Your task to perform on an android device: refresh tabs in the chrome app Image 0: 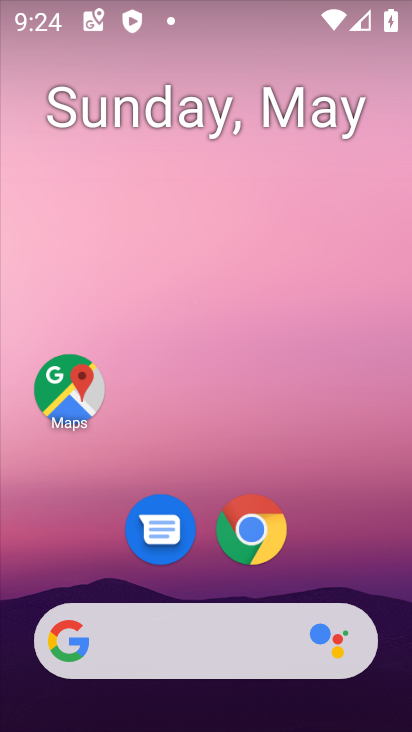
Step 0: click (258, 538)
Your task to perform on an android device: refresh tabs in the chrome app Image 1: 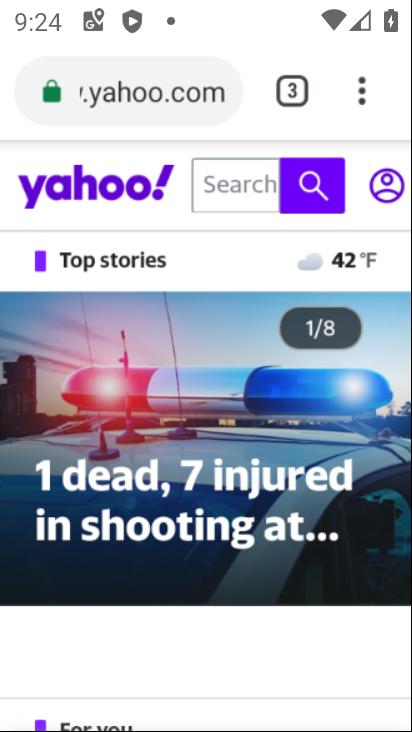
Step 1: click (363, 110)
Your task to perform on an android device: refresh tabs in the chrome app Image 2: 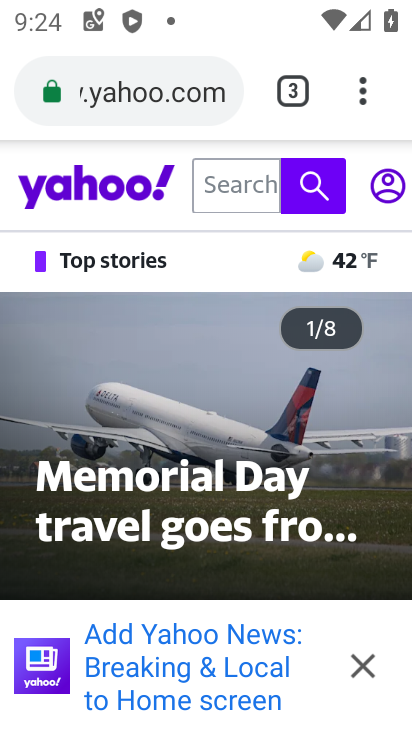
Step 2: click (361, 93)
Your task to perform on an android device: refresh tabs in the chrome app Image 3: 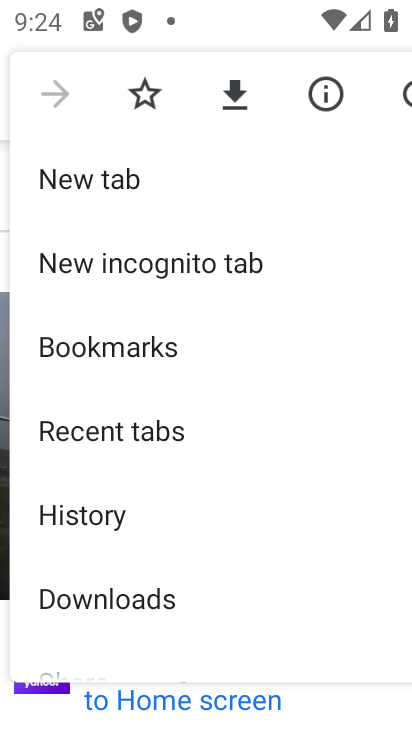
Step 3: click (392, 91)
Your task to perform on an android device: refresh tabs in the chrome app Image 4: 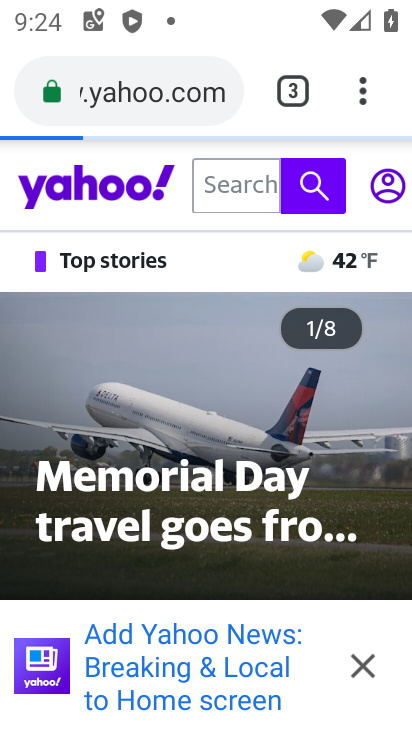
Step 4: task complete